Your task to perform on an android device: Search for logitech g903 on walmart, select the first entry, add it to the cart, then select checkout. Image 0: 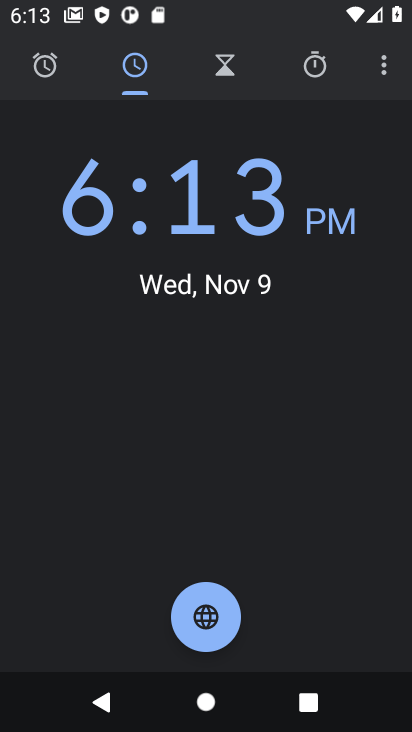
Step 0: press home button
Your task to perform on an android device: Search for logitech g903 on walmart, select the first entry, add it to the cart, then select checkout. Image 1: 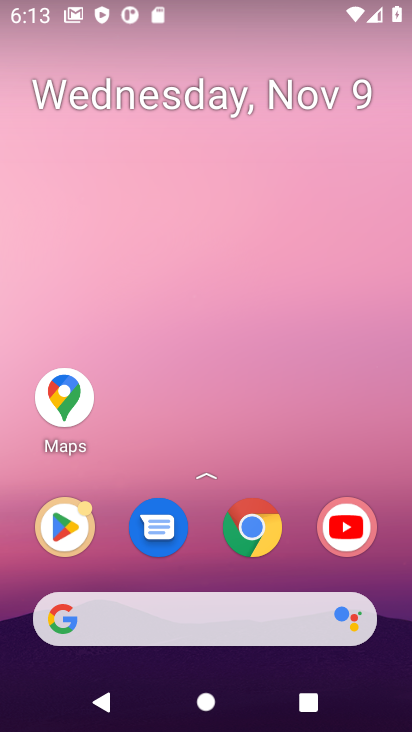
Step 1: click (262, 531)
Your task to perform on an android device: Search for logitech g903 on walmart, select the first entry, add it to the cart, then select checkout. Image 2: 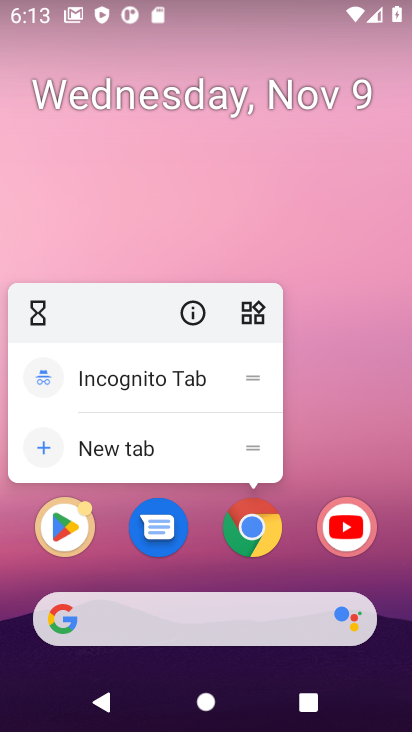
Step 2: click (257, 531)
Your task to perform on an android device: Search for logitech g903 on walmart, select the first entry, add it to the cart, then select checkout. Image 3: 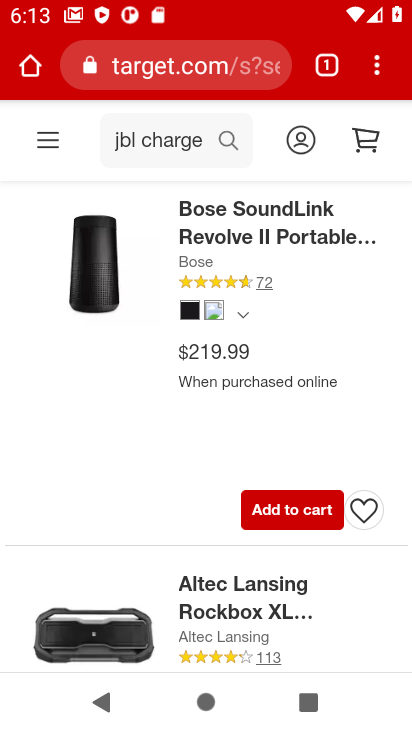
Step 3: click (187, 71)
Your task to perform on an android device: Search for logitech g903 on walmart, select the first entry, add it to the cart, then select checkout. Image 4: 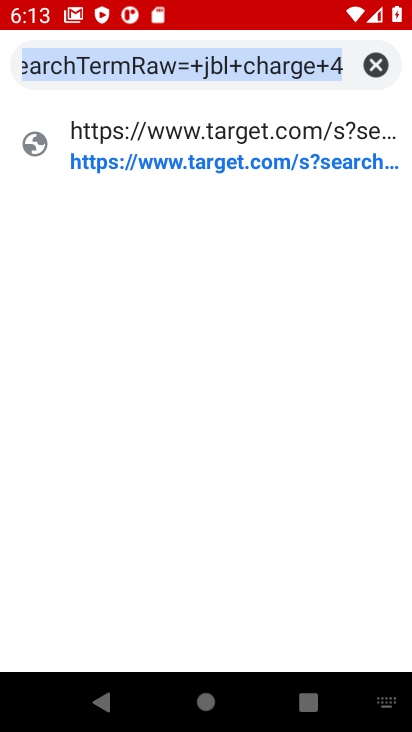
Step 4: click (366, 60)
Your task to perform on an android device: Search for logitech g903 on walmart, select the first entry, add it to the cart, then select checkout. Image 5: 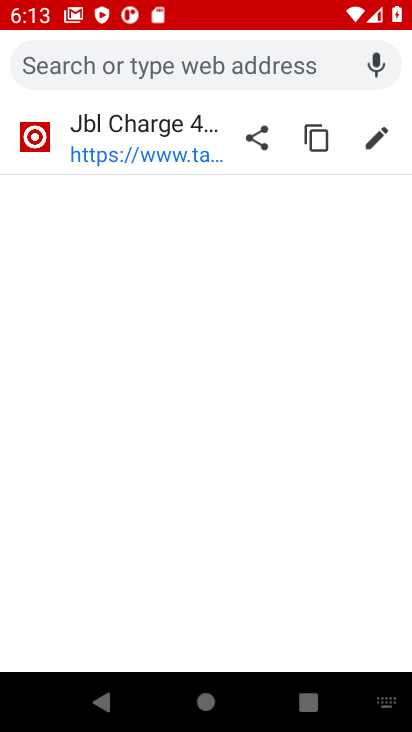
Step 5: type "walmart.com"
Your task to perform on an android device: Search for logitech g903 on walmart, select the first entry, add it to the cart, then select checkout. Image 6: 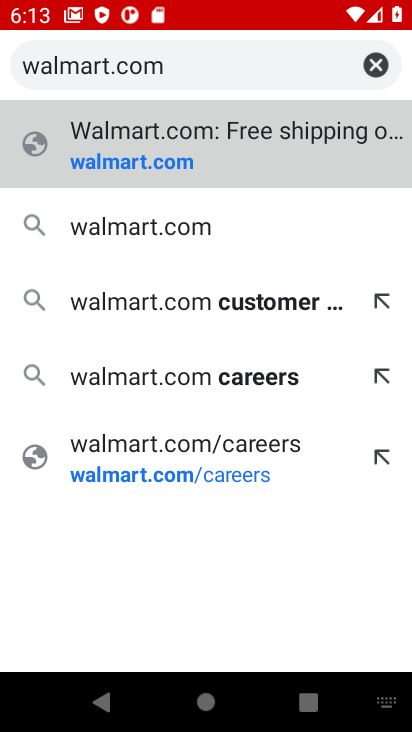
Step 6: click (127, 159)
Your task to perform on an android device: Search for logitech g903 on walmart, select the first entry, add it to the cart, then select checkout. Image 7: 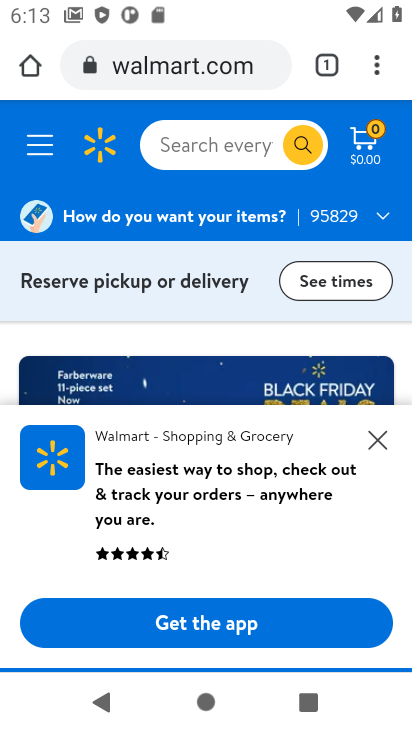
Step 7: click (176, 133)
Your task to perform on an android device: Search for logitech g903 on walmart, select the first entry, add it to the cart, then select checkout. Image 8: 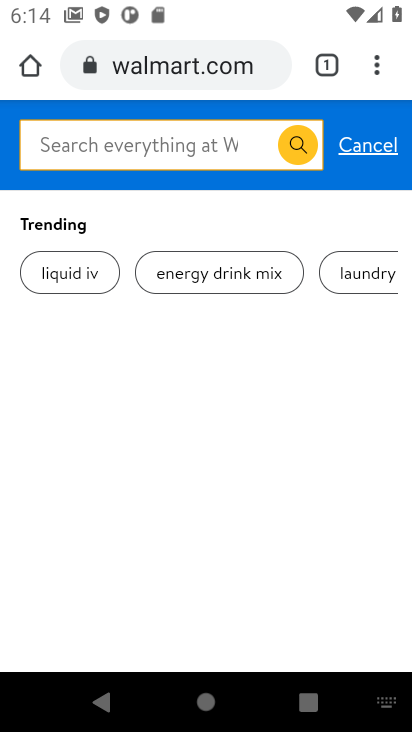
Step 8: type "logitech g903 "
Your task to perform on an android device: Search for logitech g903 on walmart, select the first entry, add it to the cart, then select checkout. Image 9: 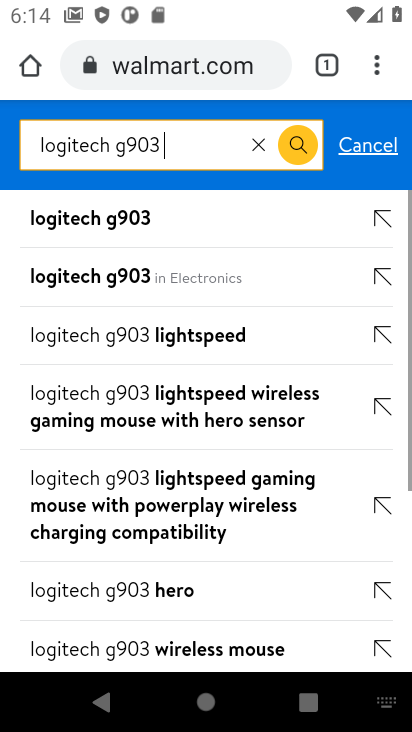
Step 9: click (54, 218)
Your task to perform on an android device: Search for logitech g903 on walmart, select the first entry, add it to the cart, then select checkout. Image 10: 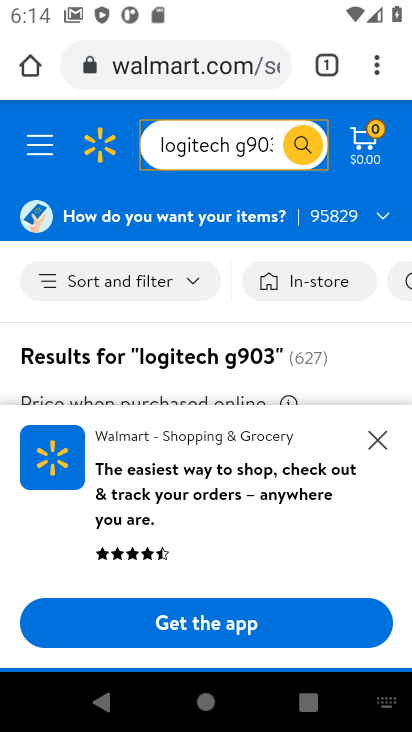
Step 10: click (383, 440)
Your task to perform on an android device: Search for logitech g903 on walmart, select the first entry, add it to the cart, then select checkout. Image 11: 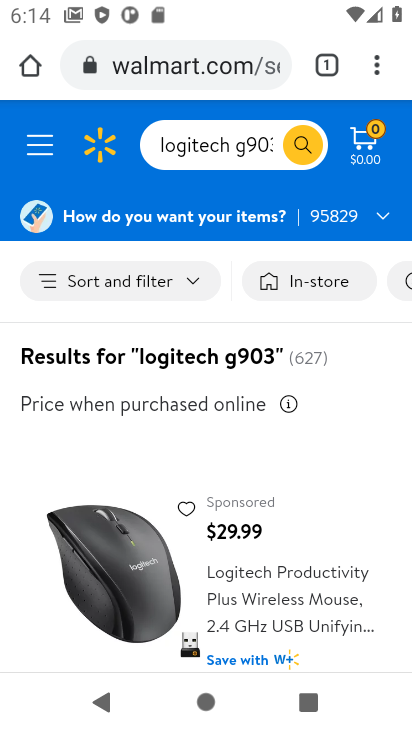
Step 11: task complete